Your task to perform on an android device: refresh tabs in the chrome app Image 0: 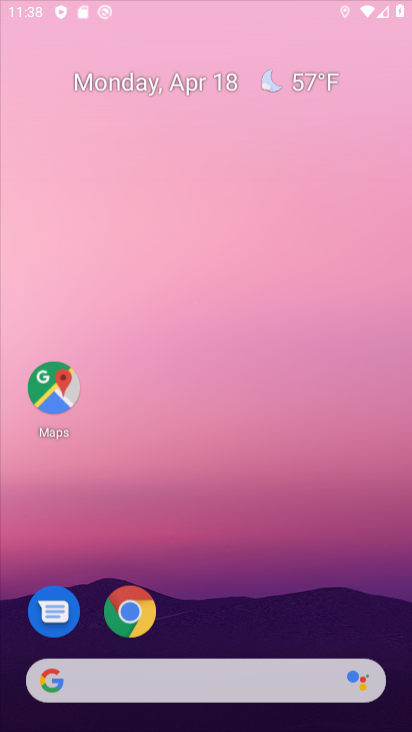
Step 0: drag from (228, 554) to (228, 197)
Your task to perform on an android device: refresh tabs in the chrome app Image 1: 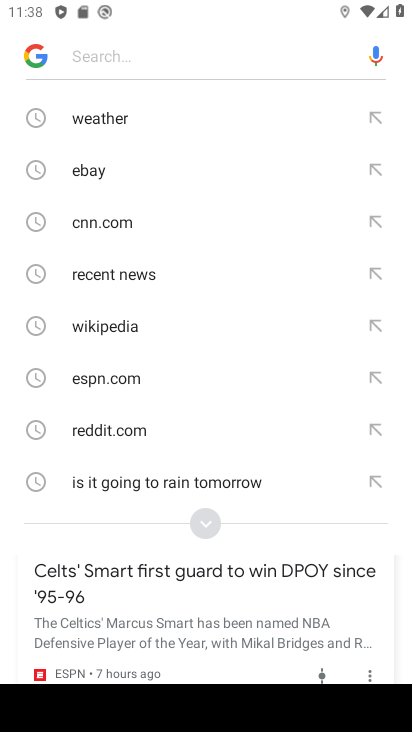
Step 1: press home button
Your task to perform on an android device: refresh tabs in the chrome app Image 2: 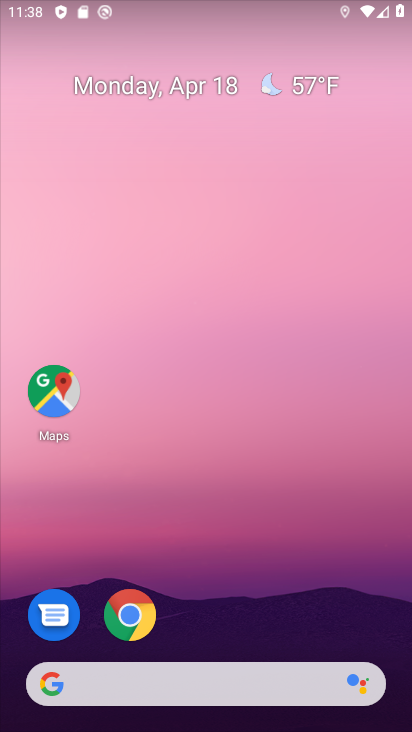
Step 2: click (118, 602)
Your task to perform on an android device: refresh tabs in the chrome app Image 3: 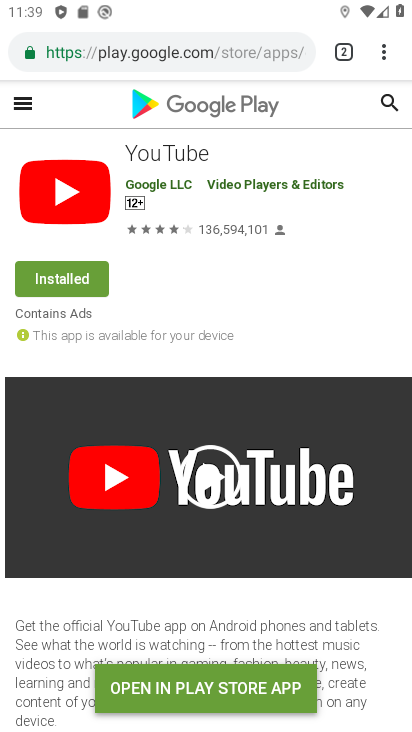
Step 3: click (382, 58)
Your task to perform on an android device: refresh tabs in the chrome app Image 4: 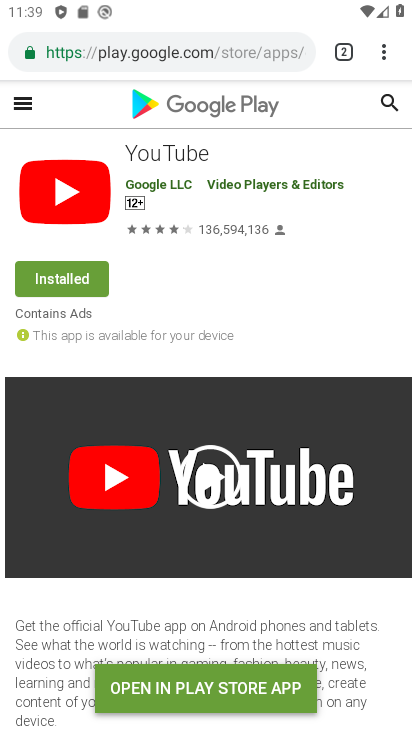
Step 4: click (379, 63)
Your task to perform on an android device: refresh tabs in the chrome app Image 5: 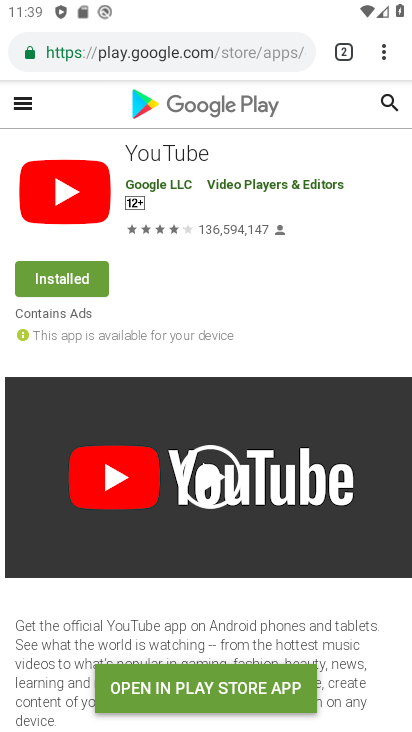
Step 5: task complete